Your task to perform on an android device: Go to Reddit.com Image 0: 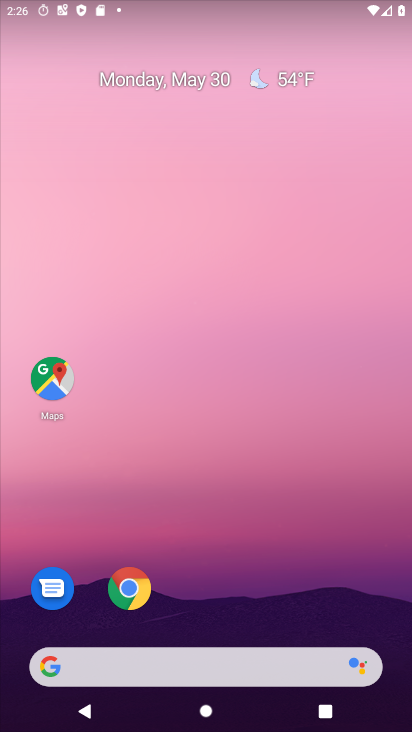
Step 0: drag from (186, 491) to (200, 32)
Your task to perform on an android device: Go to Reddit.com Image 1: 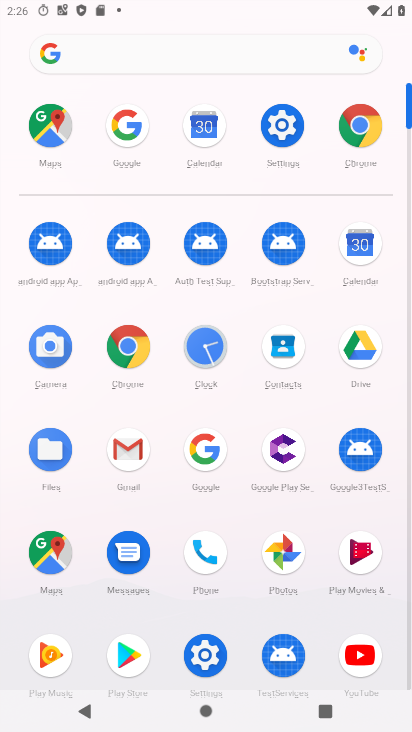
Step 1: click (130, 131)
Your task to perform on an android device: Go to Reddit.com Image 2: 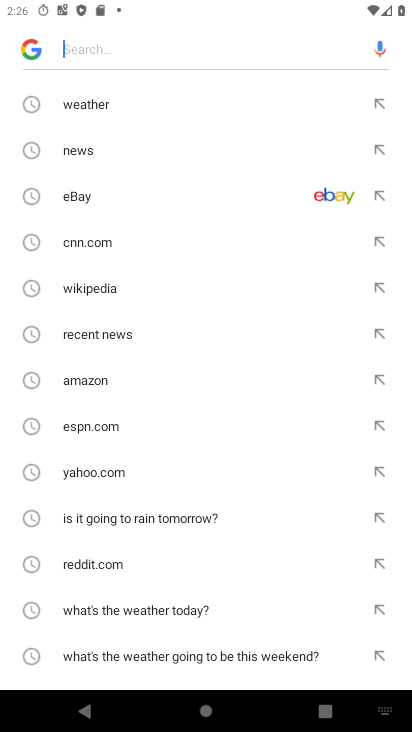
Step 2: drag from (173, 539) to (185, 161)
Your task to perform on an android device: Go to Reddit.com Image 3: 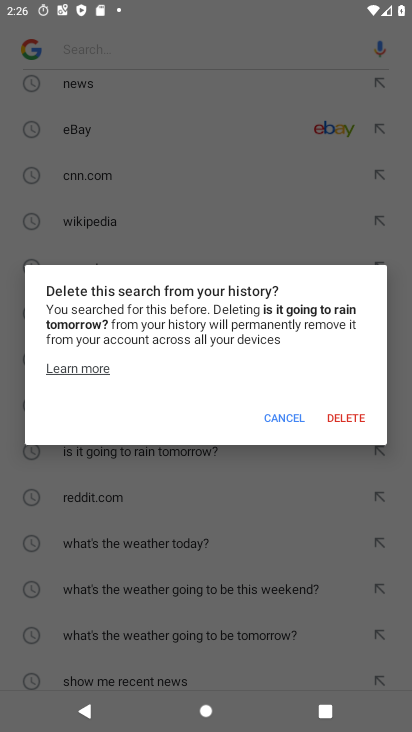
Step 3: click (288, 421)
Your task to perform on an android device: Go to Reddit.com Image 4: 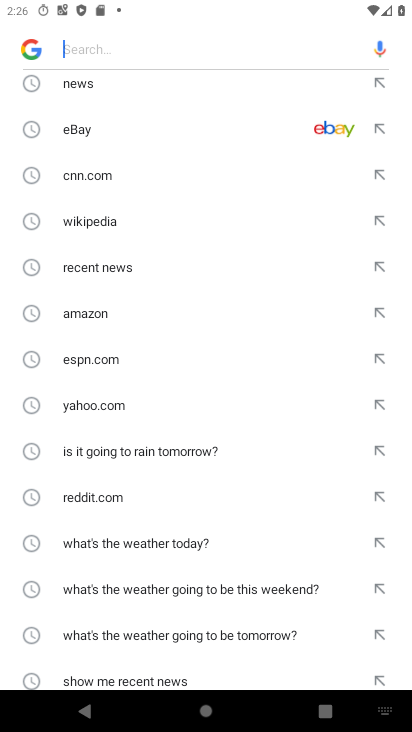
Step 4: drag from (266, 576) to (252, 114)
Your task to perform on an android device: Go to Reddit.com Image 5: 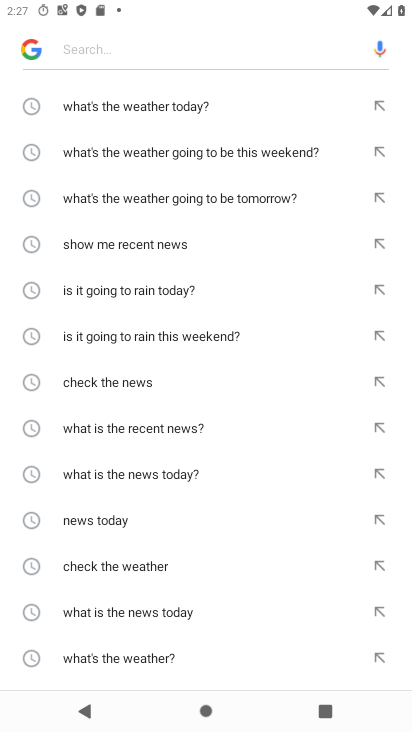
Step 5: drag from (207, 610) to (195, 80)
Your task to perform on an android device: Go to Reddit.com Image 6: 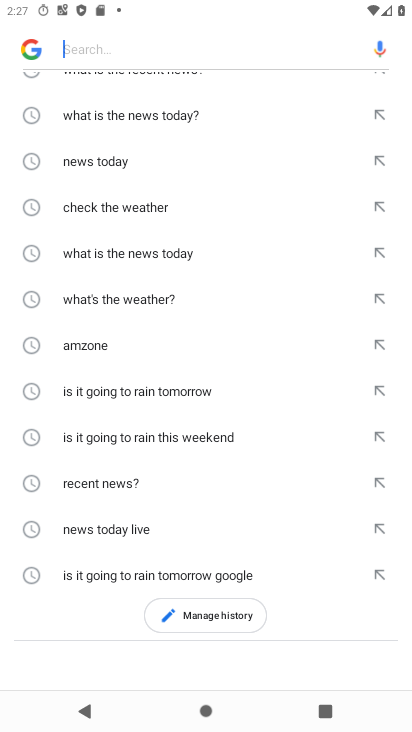
Step 6: type "reddit.com"
Your task to perform on an android device: Go to Reddit.com Image 7: 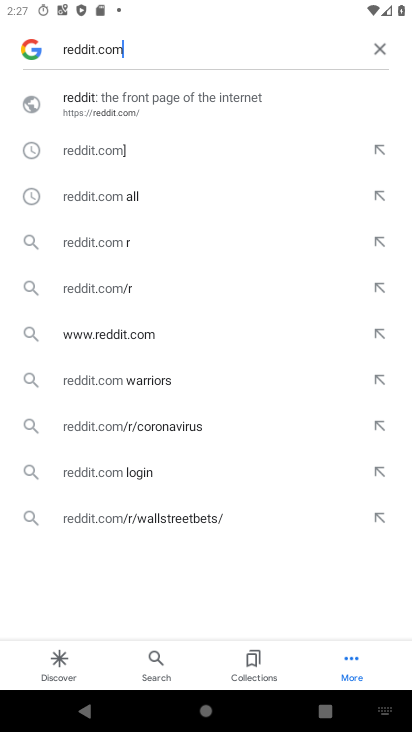
Step 7: click (152, 104)
Your task to perform on an android device: Go to Reddit.com Image 8: 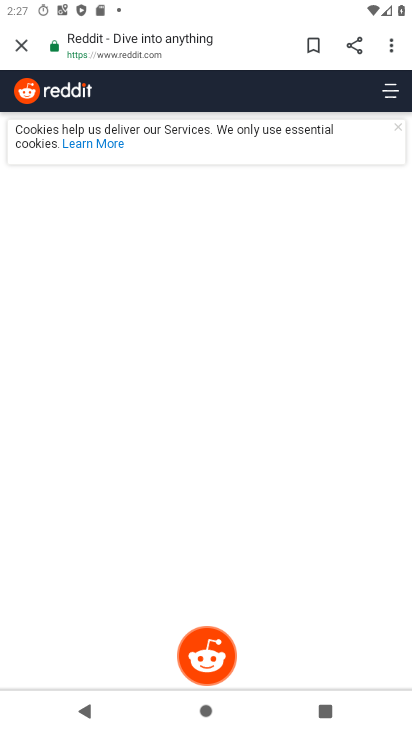
Step 8: task complete